Your task to perform on an android device: change the upload size in google photos Image 0: 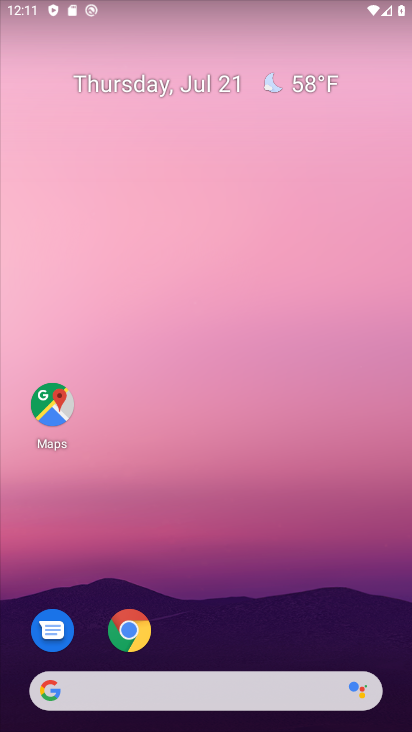
Step 0: drag from (207, 694) to (171, 136)
Your task to perform on an android device: change the upload size in google photos Image 1: 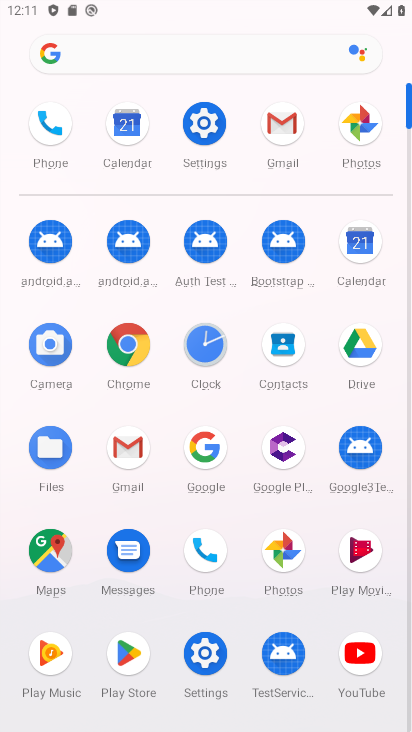
Step 1: click (274, 557)
Your task to perform on an android device: change the upload size in google photos Image 2: 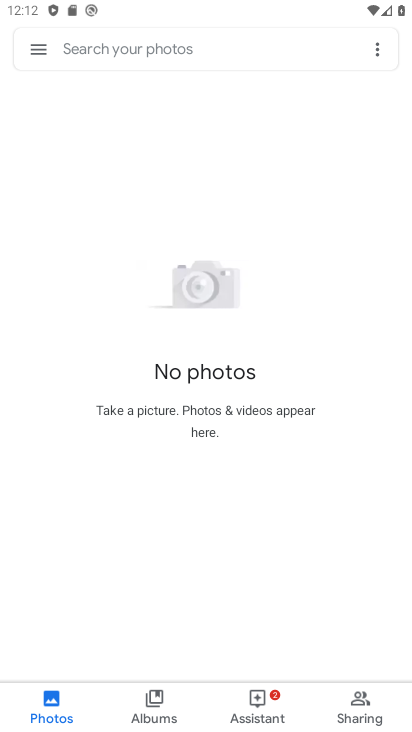
Step 2: click (33, 45)
Your task to perform on an android device: change the upload size in google photos Image 3: 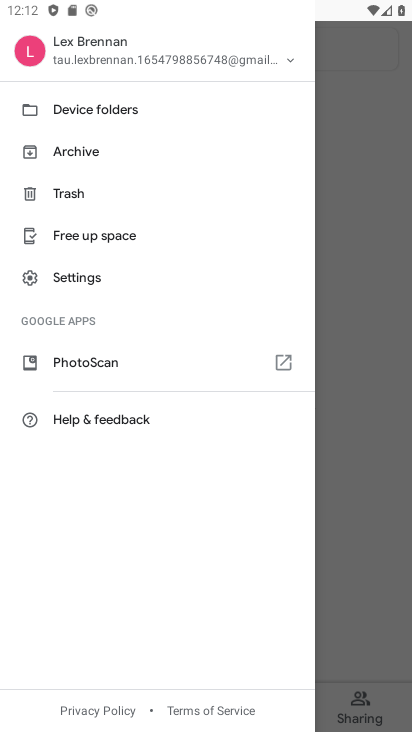
Step 3: click (86, 287)
Your task to perform on an android device: change the upload size in google photos Image 4: 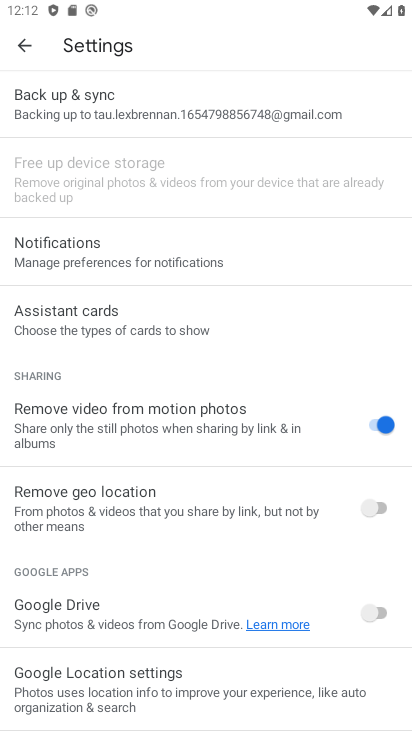
Step 4: click (79, 108)
Your task to perform on an android device: change the upload size in google photos Image 5: 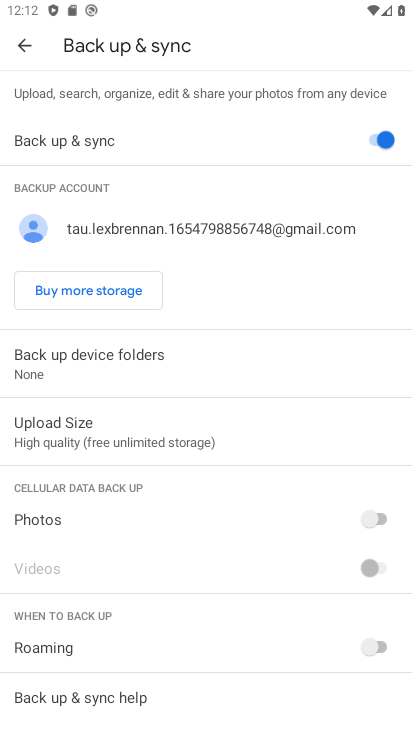
Step 5: click (137, 436)
Your task to perform on an android device: change the upload size in google photos Image 6: 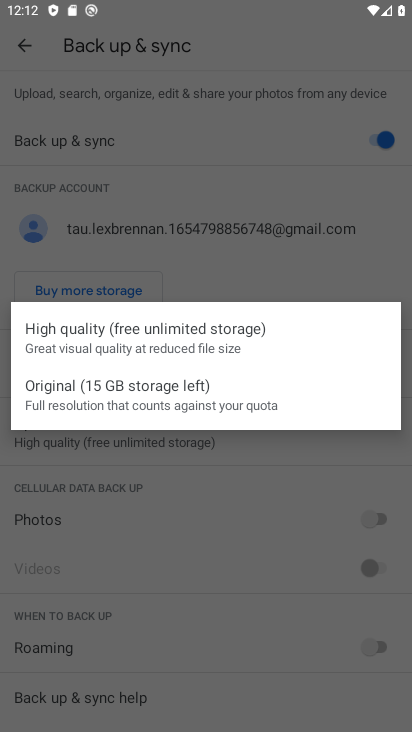
Step 6: click (109, 400)
Your task to perform on an android device: change the upload size in google photos Image 7: 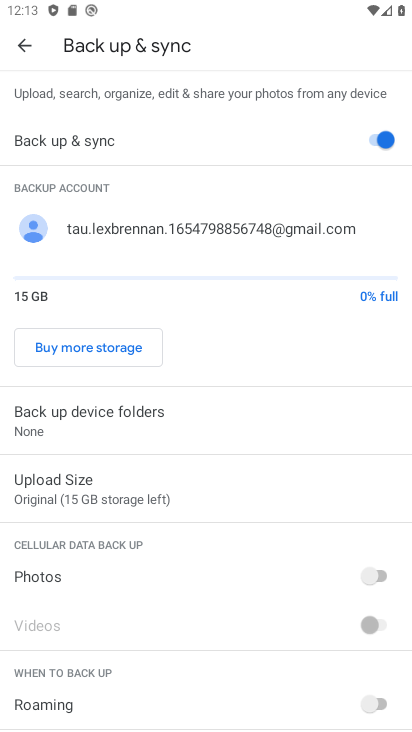
Step 7: task complete